Your task to perform on an android device: read, delete, or share a saved page in the chrome app Image 0: 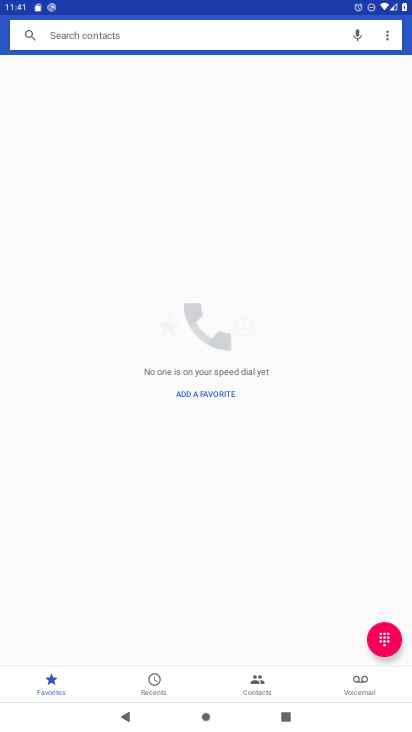
Step 0: press home button
Your task to perform on an android device: read, delete, or share a saved page in the chrome app Image 1: 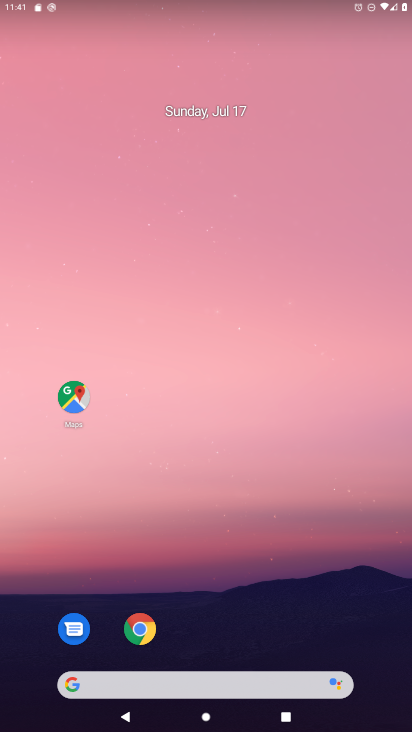
Step 1: click (141, 628)
Your task to perform on an android device: read, delete, or share a saved page in the chrome app Image 2: 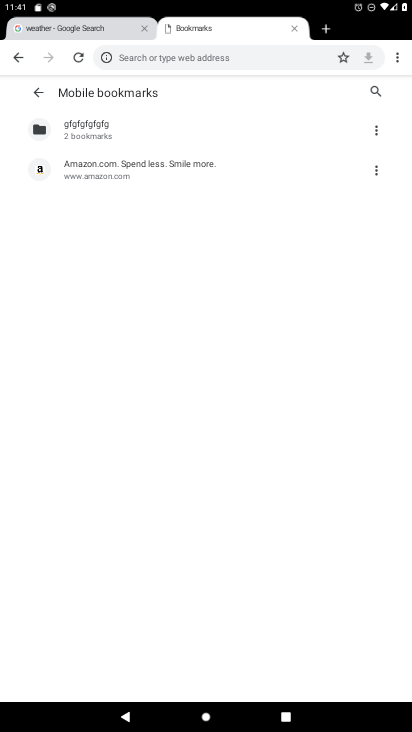
Step 2: click (397, 59)
Your task to perform on an android device: read, delete, or share a saved page in the chrome app Image 3: 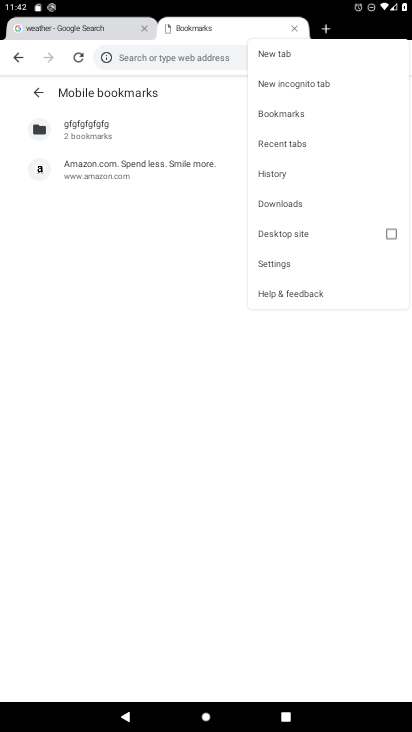
Step 3: click (298, 204)
Your task to perform on an android device: read, delete, or share a saved page in the chrome app Image 4: 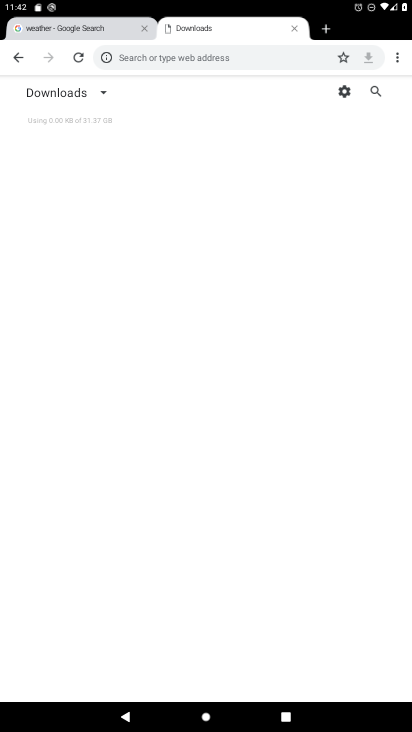
Step 4: click (104, 94)
Your task to perform on an android device: read, delete, or share a saved page in the chrome app Image 5: 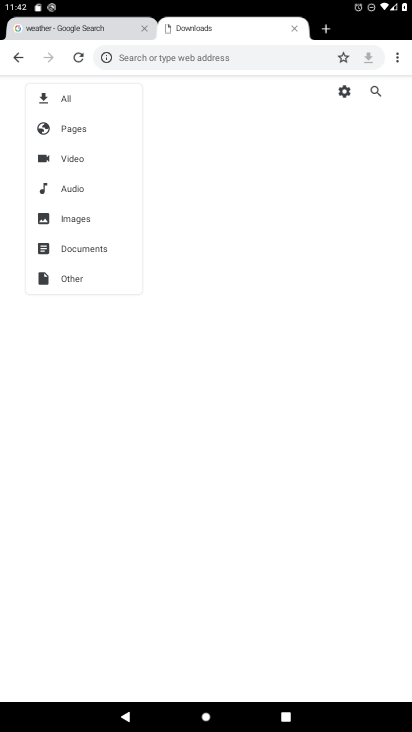
Step 5: click (75, 199)
Your task to perform on an android device: read, delete, or share a saved page in the chrome app Image 6: 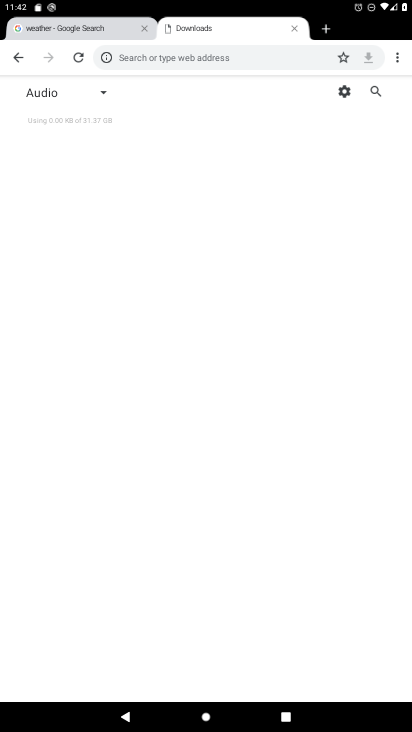
Step 6: click (108, 92)
Your task to perform on an android device: read, delete, or share a saved page in the chrome app Image 7: 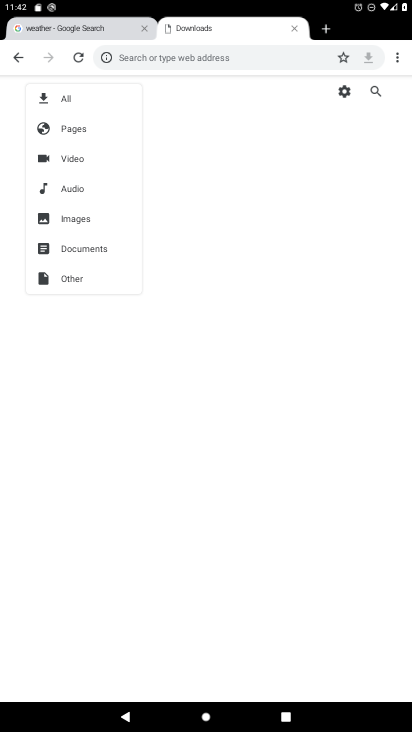
Step 7: click (71, 278)
Your task to perform on an android device: read, delete, or share a saved page in the chrome app Image 8: 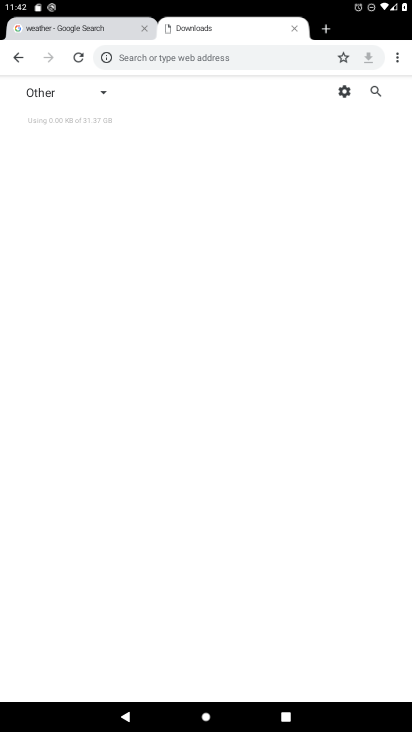
Step 8: task complete